Your task to perform on an android device: open the mobile data screen to see how much data has been used Image 0: 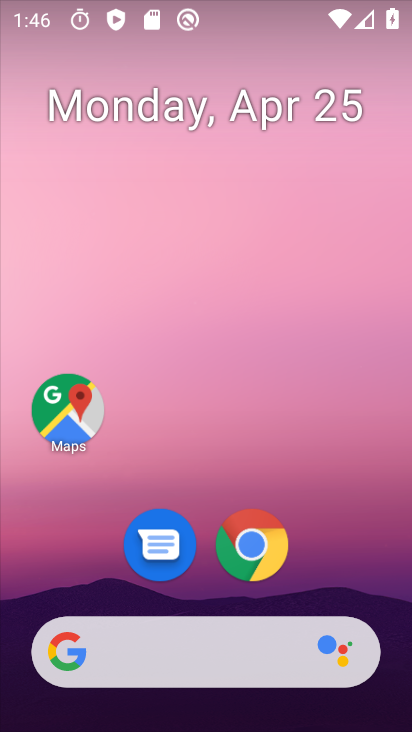
Step 0: click (76, 402)
Your task to perform on an android device: open the mobile data screen to see how much data has been used Image 1: 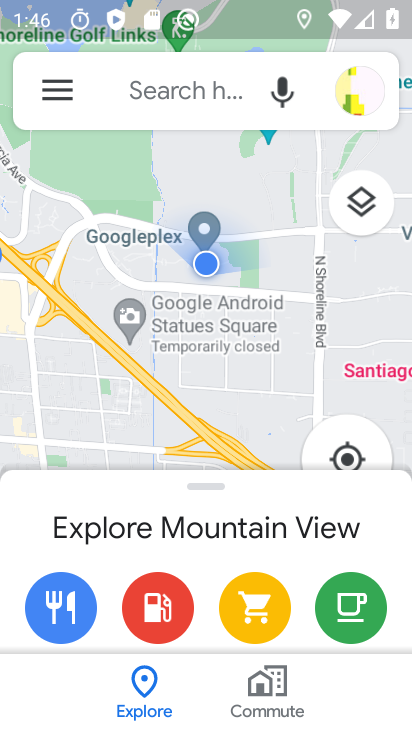
Step 1: press home button
Your task to perform on an android device: open the mobile data screen to see how much data has been used Image 2: 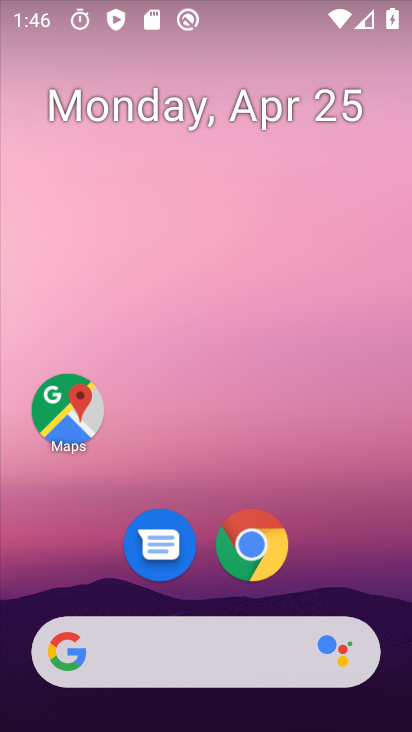
Step 2: drag from (317, 566) to (287, 90)
Your task to perform on an android device: open the mobile data screen to see how much data has been used Image 3: 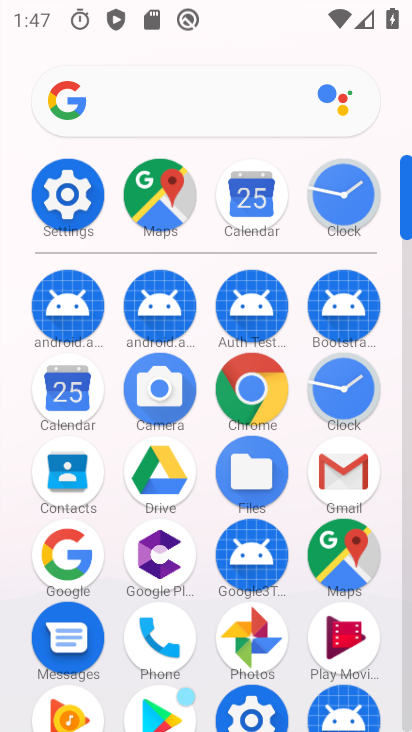
Step 3: click (70, 195)
Your task to perform on an android device: open the mobile data screen to see how much data has been used Image 4: 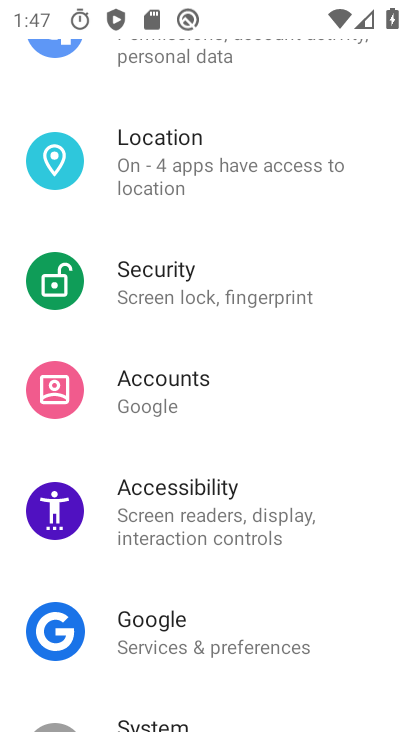
Step 4: drag from (286, 265) to (240, 574)
Your task to perform on an android device: open the mobile data screen to see how much data has been used Image 5: 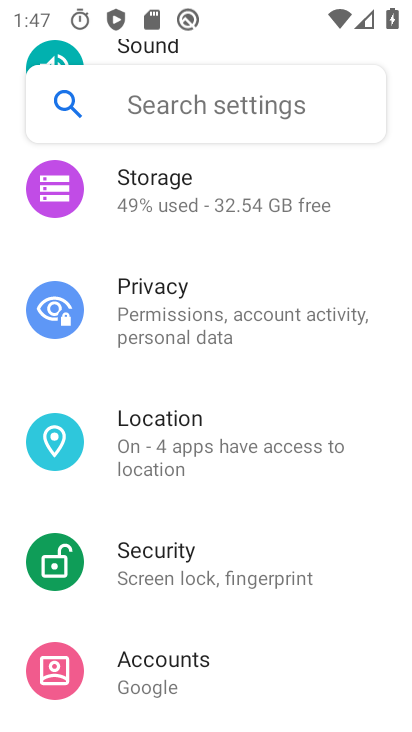
Step 5: drag from (255, 233) to (185, 668)
Your task to perform on an android device: open the mobile data screen to see how much data has been used Image 6: 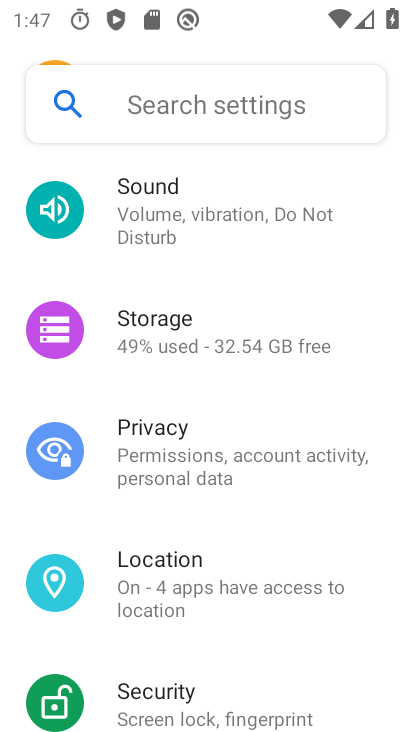
Step 6: drag from (224, 305) to (187, 731)
Your task to perform on an android device: open the mobile data screen to see how much data has been used Image 7: 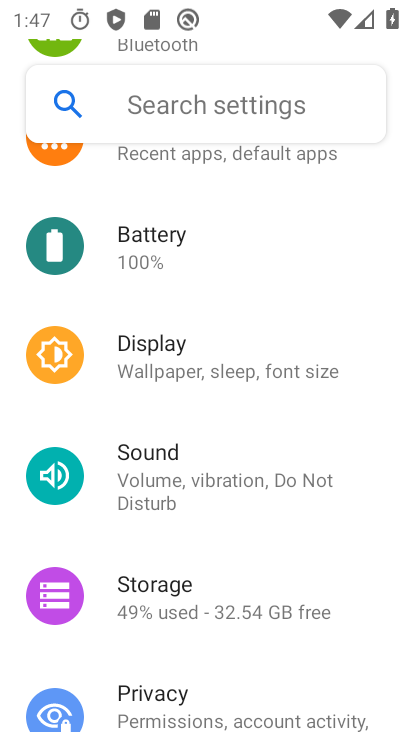
Step 7: drag from (278, 331) to (249, 557)
Your task to perform on an android device: open the mobile data screen to see how much data has been used Image 8: 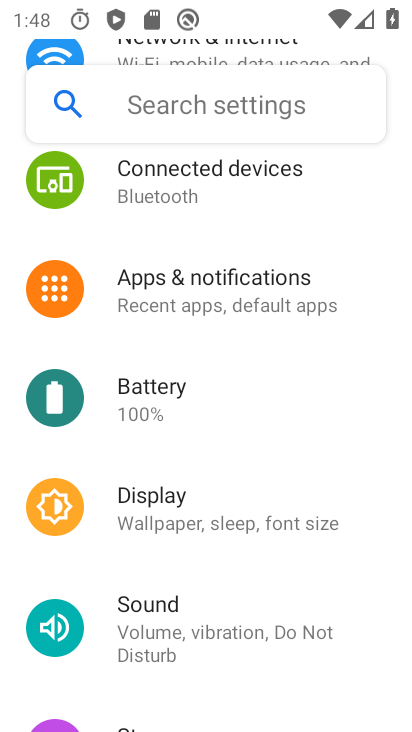
Step 8: drag from (249, 222) to (250, 686)
Your task to perform on an android device: open the mobile data screen to see how much data has been used Image 9: 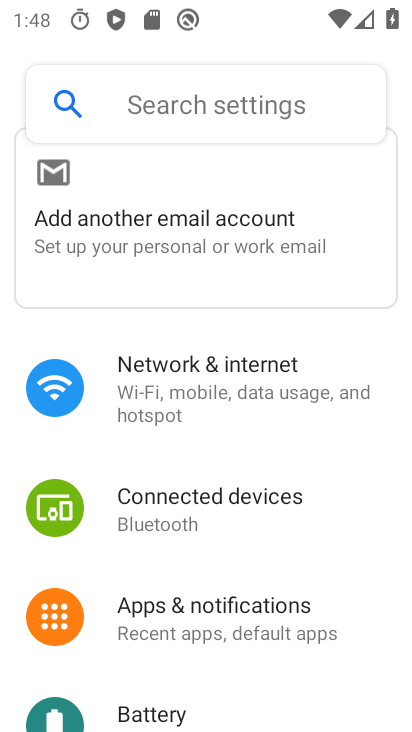
Step 9: click (265, 385)
Your task to perform on an android device: open the mobile data screen to see how much data has been used Image 10: 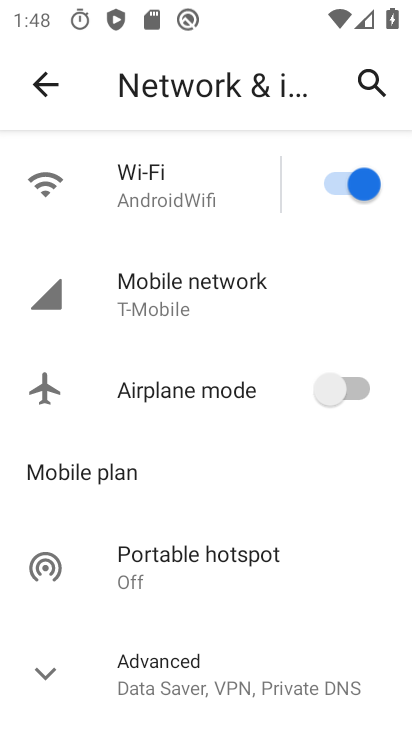
Step 10: click (141, 309)
Your task to perform on an android device: open the mobile data screen to see how much data has been used Image 11: 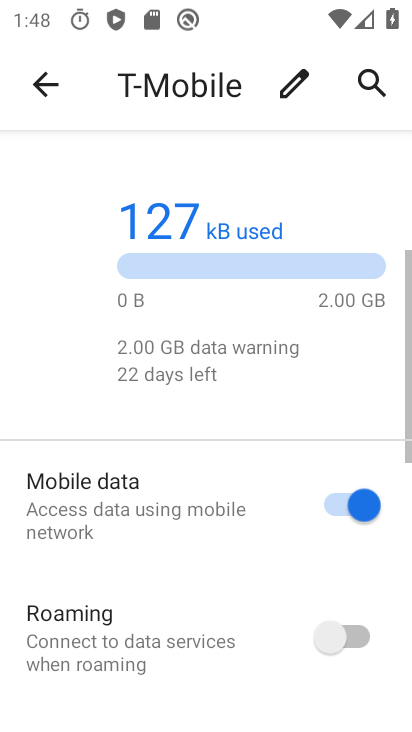
Step 11: drag from (221, 633) to (223, 316)
Your task to perform on an android device: open the mobile data screen to see how much data has been used Image 12: 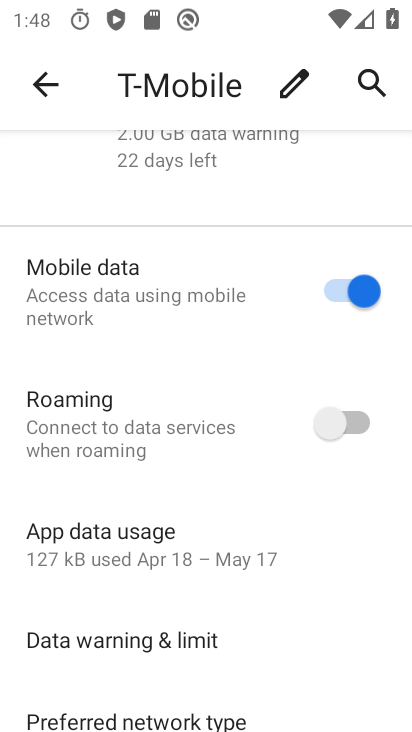
Step 12: click (150, 550)
Your task to perform on an android device: open the mobile data screen to see how much data has been used Image 13: 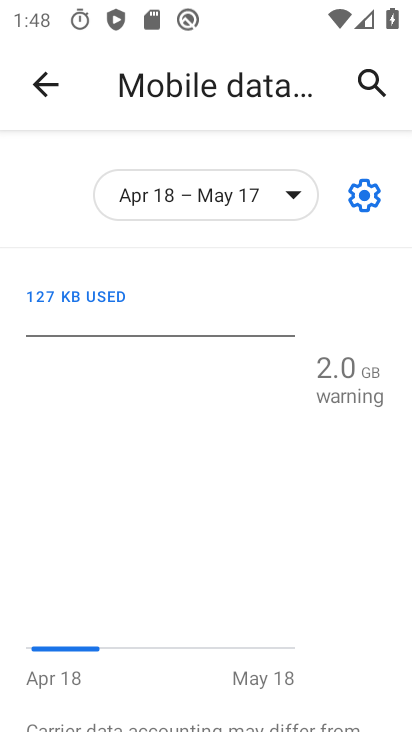
Step 13: task complete